Your task to perform on an android device: Open calendar and show me the second week of next month Image 0: 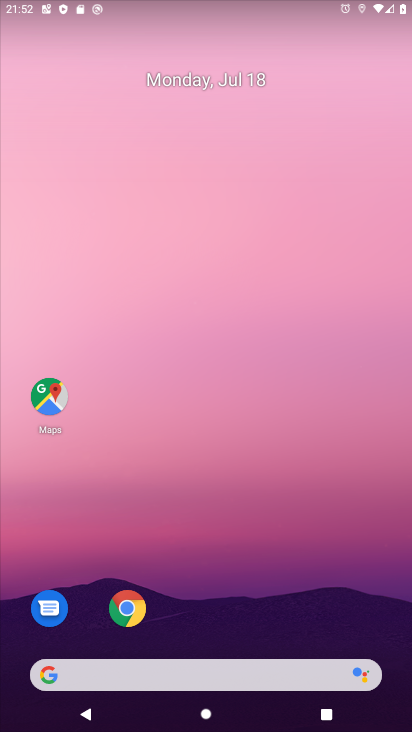
Step 0: click (87, 672)
Your task to perform on an android device: Open calendar and show me the second week of next month Image 1: 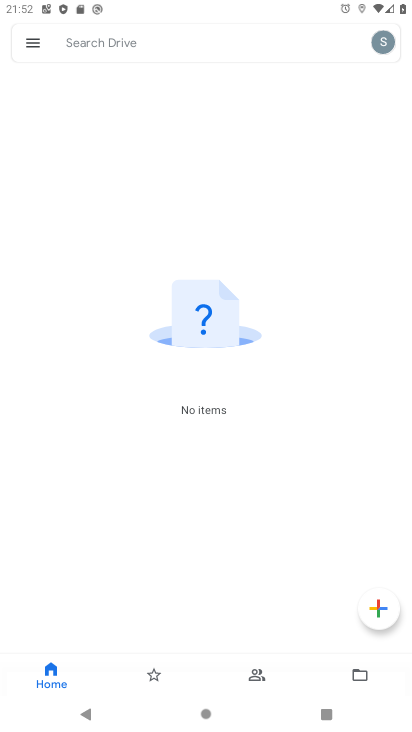
Step 1: press home button
Your task to perform on an android device: Open calendar and show me the second week of next month Image 2: 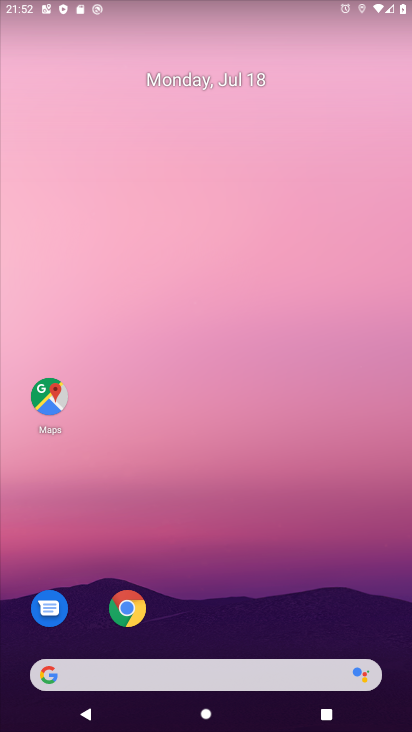
Step 2: drag from (17, 689) to (227, 125)
Your task to perform on an android device: Open calendar and show me the second week of next month Image 3: 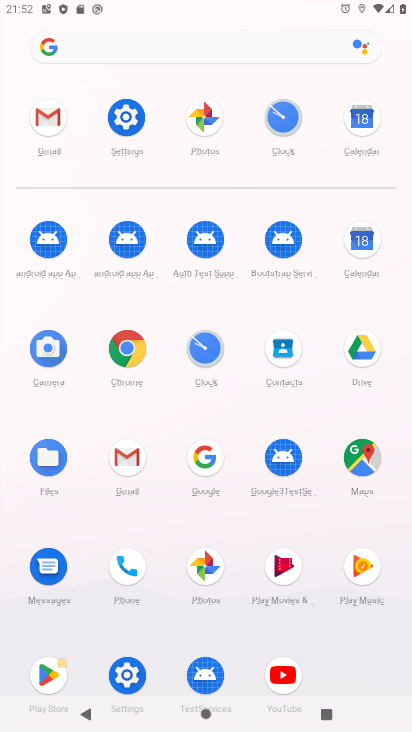
Step 3: click (362, 232)
Your task to perform on an android device: Open calendar and show me the second week of next month Image 4: 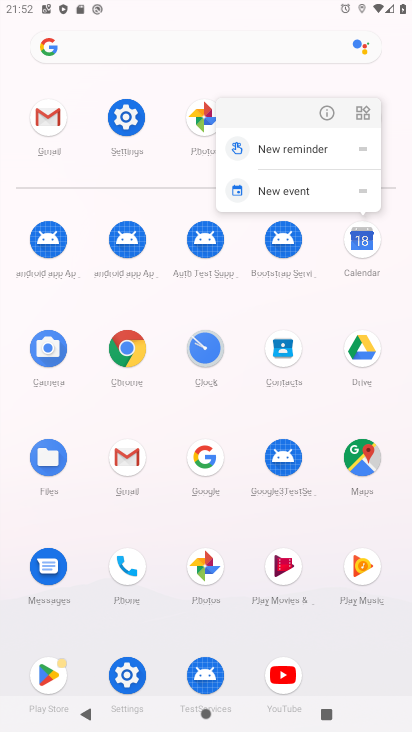
Step 4: click (364, 254)
Your task to perform on an android device: Open calendar and show me the second week of next month Image 5: 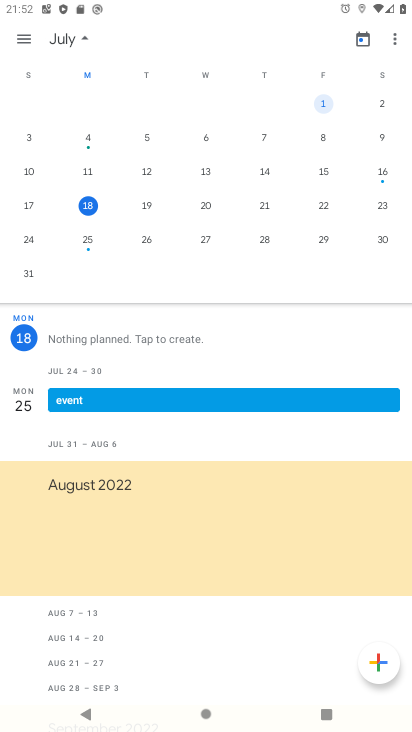
Step 5: drag from (400, 153) to (52, 123)
Your task to perform on an android device: Open calendar and show me the second week of next month Image 6: 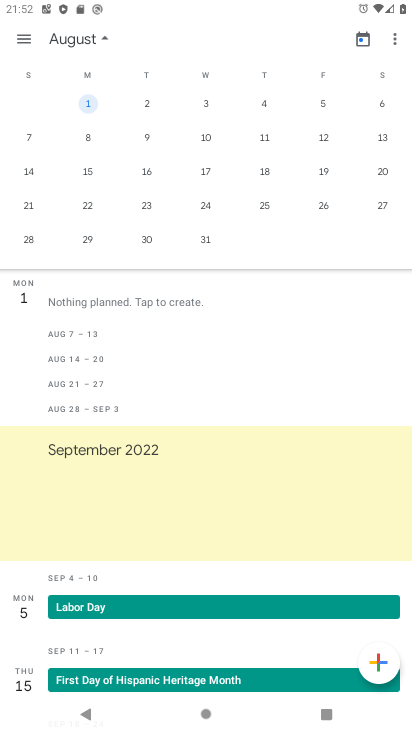
Step 6: click (81, 133)
Your task to perform on an android device: Open calendar and show me the second week of next month Image 7: 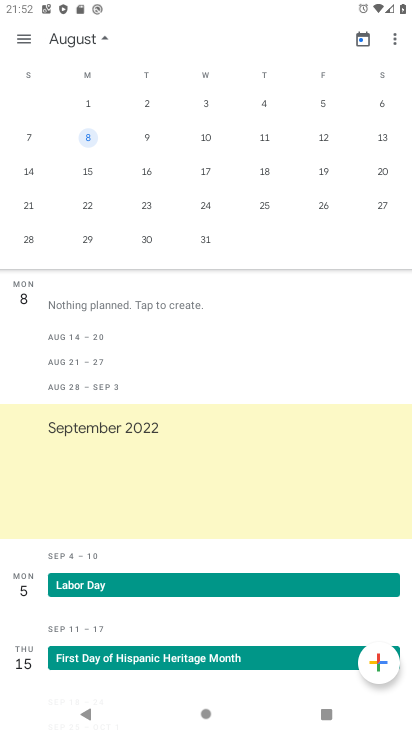
Step 7: task complete